Your task to perform on an android device: Add "usb-c to usb-a" to the cart on bestbuy.com, then select checkout. Image 0: 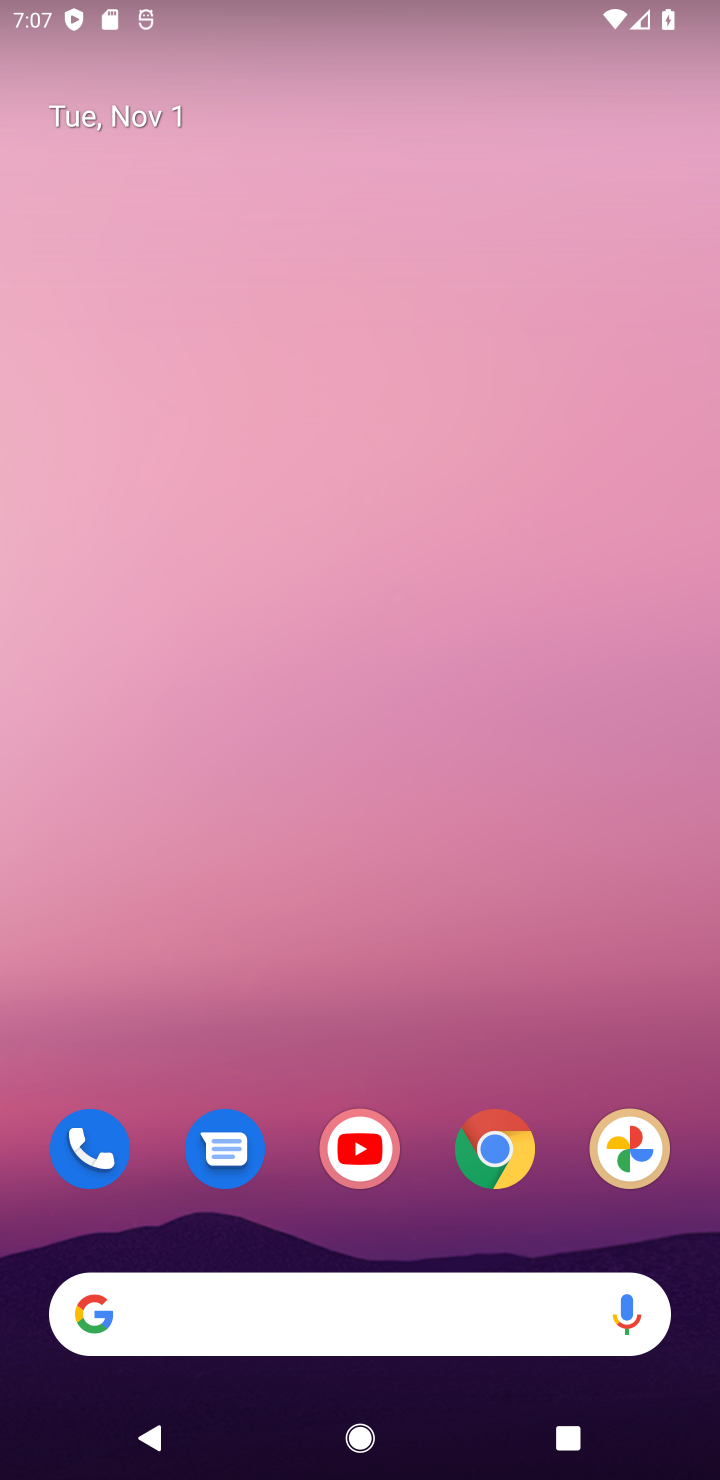
Step 0: drag from (415, 1249) to (537, 0)
Your task to perform on an android device: Add "usb-c to usb-a" to the cart on bestbuy.com, then select checkout. Image 1: 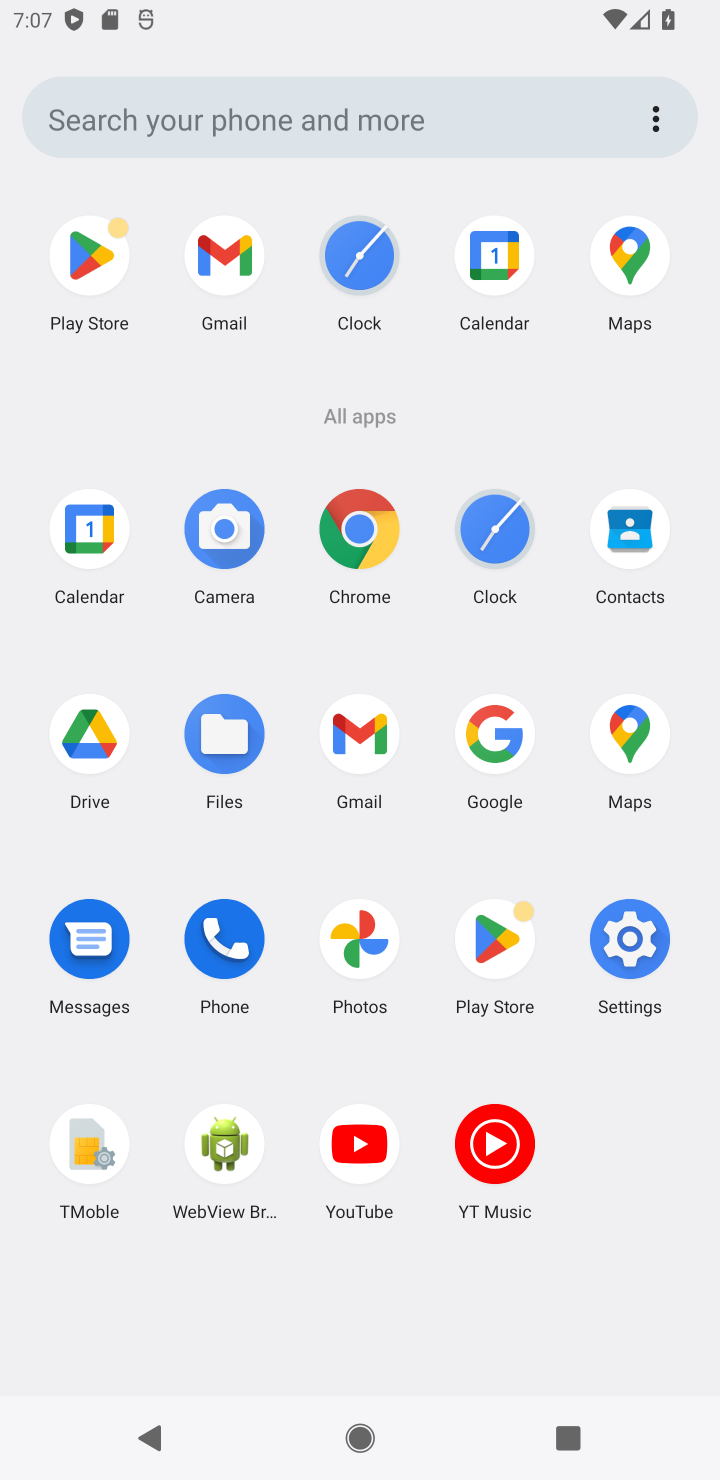
Step 1: click (371, 538)
Your task to perform on an android device: Add "usb-c to usb-a" to the cart on bestbuy.com, then select checkout. Image 2: 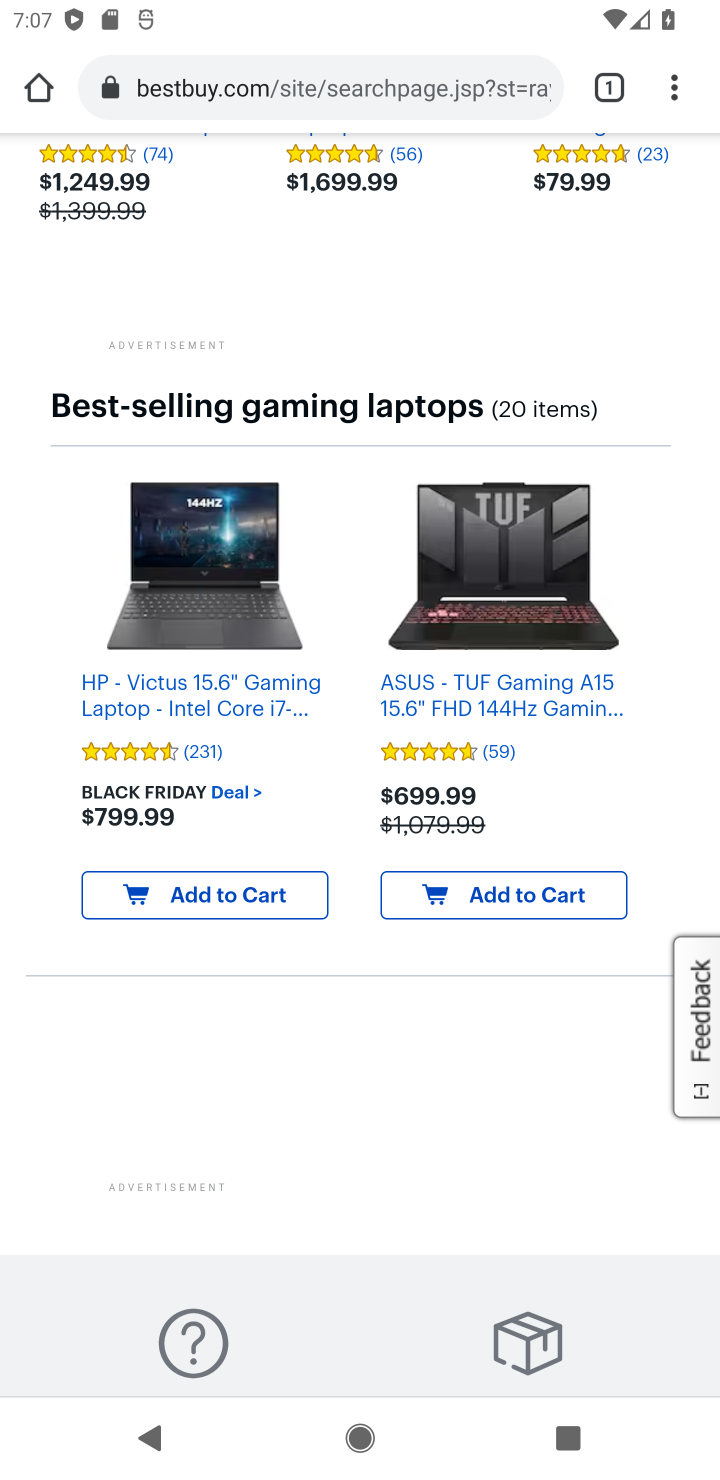
Step 2: click (402, 76)
Your task to perform on an android device: Add "usb-c to usb-a" to the cart on bestbuy.com, then select checkout. Image 3: 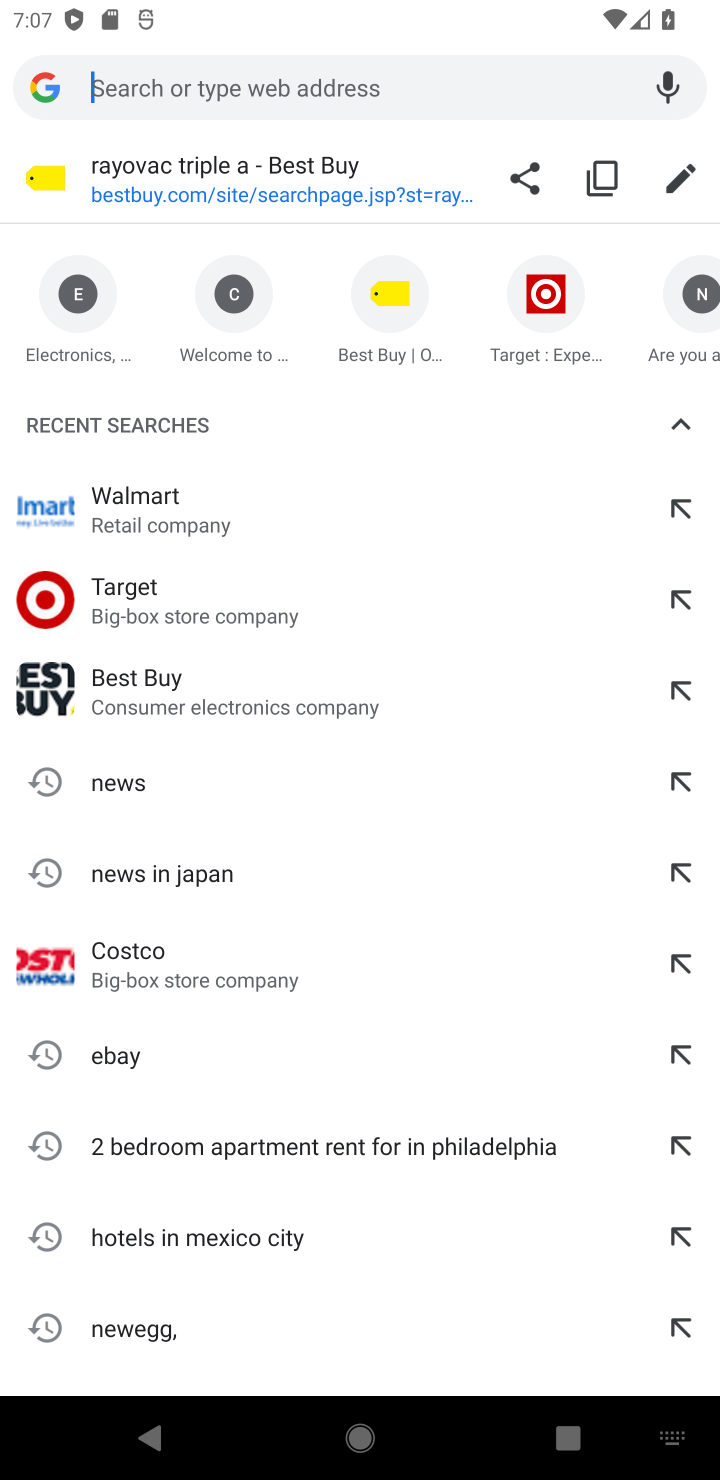
Step 3: type "bestbuy.com"
Your task to perform on an android device: Add "usb-c to usb-a" to the cart on bestbuy.com, then select checkout. Image 4: 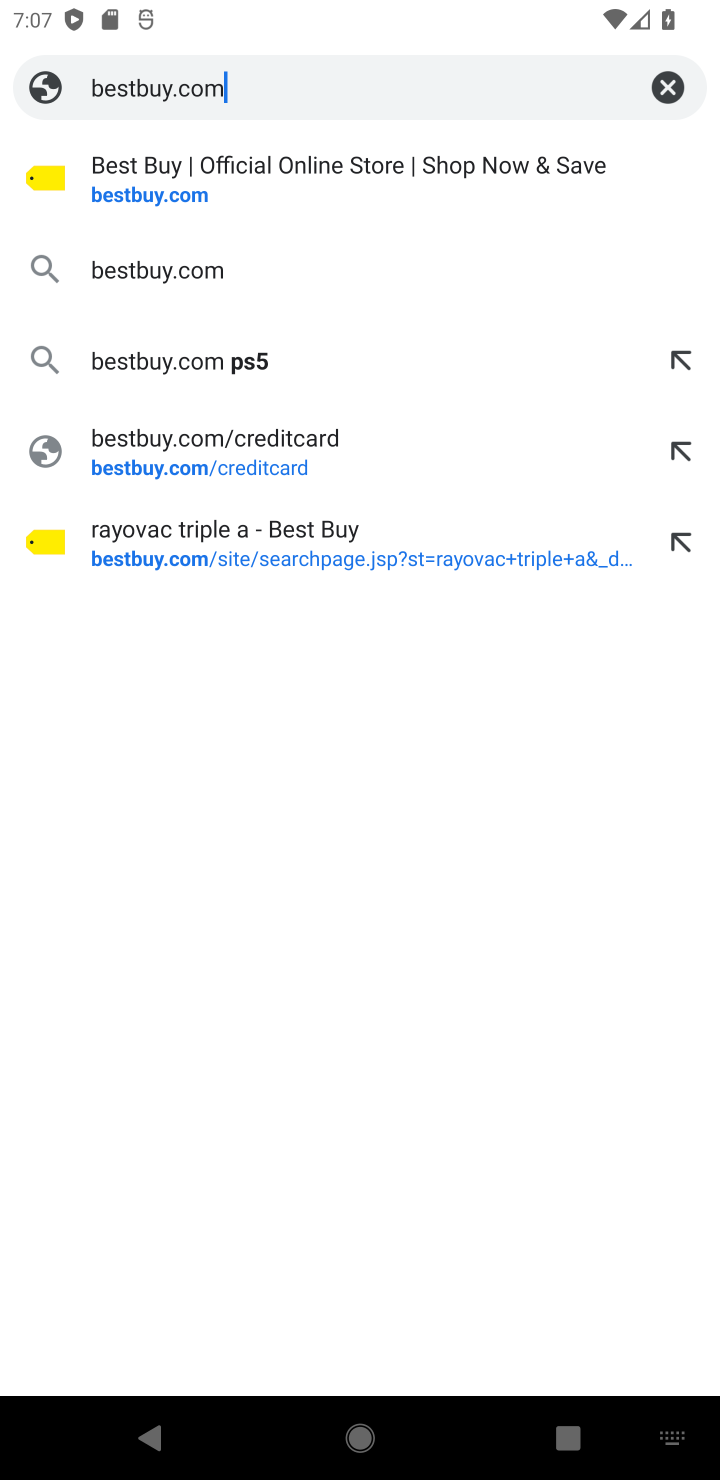
Step 4: press enter
Your task to perform on an android device: Add "usb-c to usb-a" to the cart on bestbuy.com, then select checkout. Image 5: 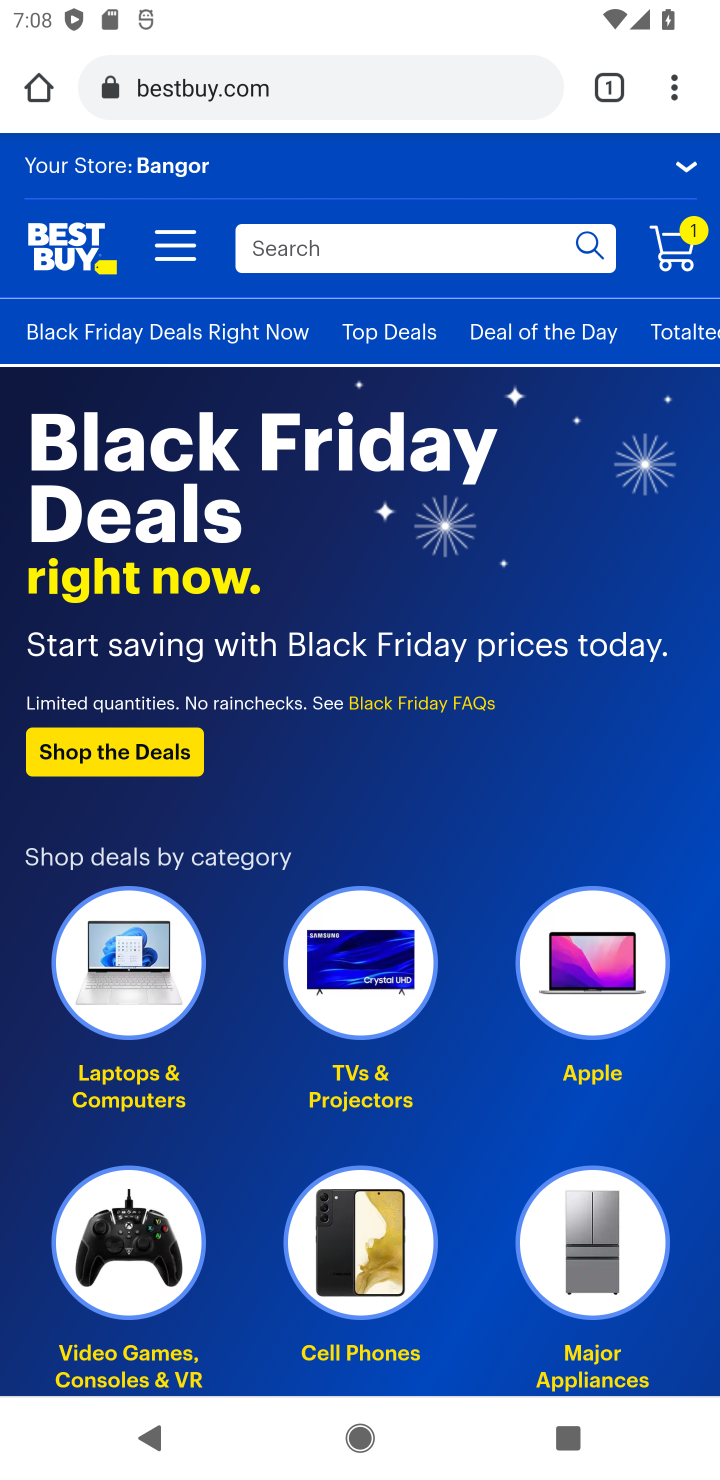
Step 5: click (425, 256)
Your task to perform on an android device: Add "usb-c to usb-a" to the cart on bestbuy.com, then select checkout. Image 6: 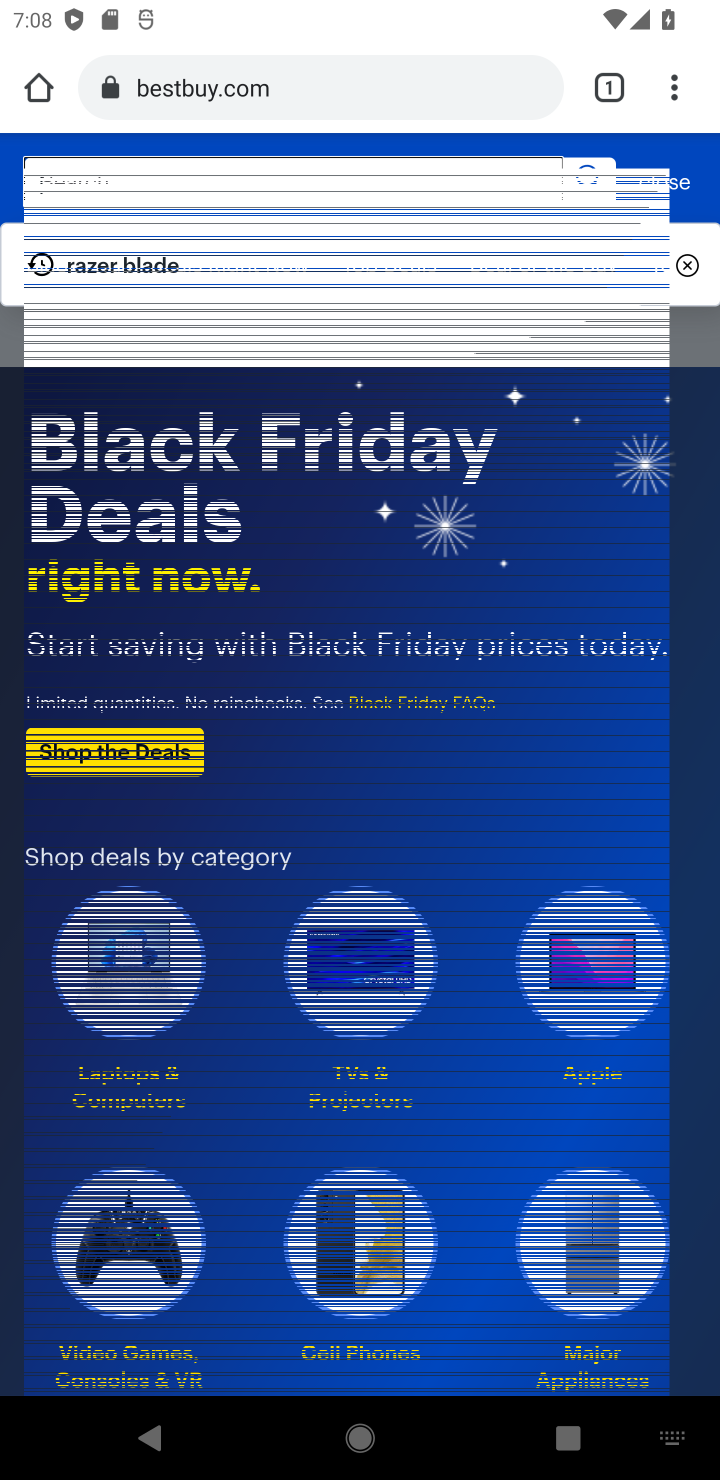
Step 6: type "usb-c to usb-a"
Your task to perform on an android device: Add "usb-c to usb-a" to the cart on bestbuy.com, then select checkout. Image 7: 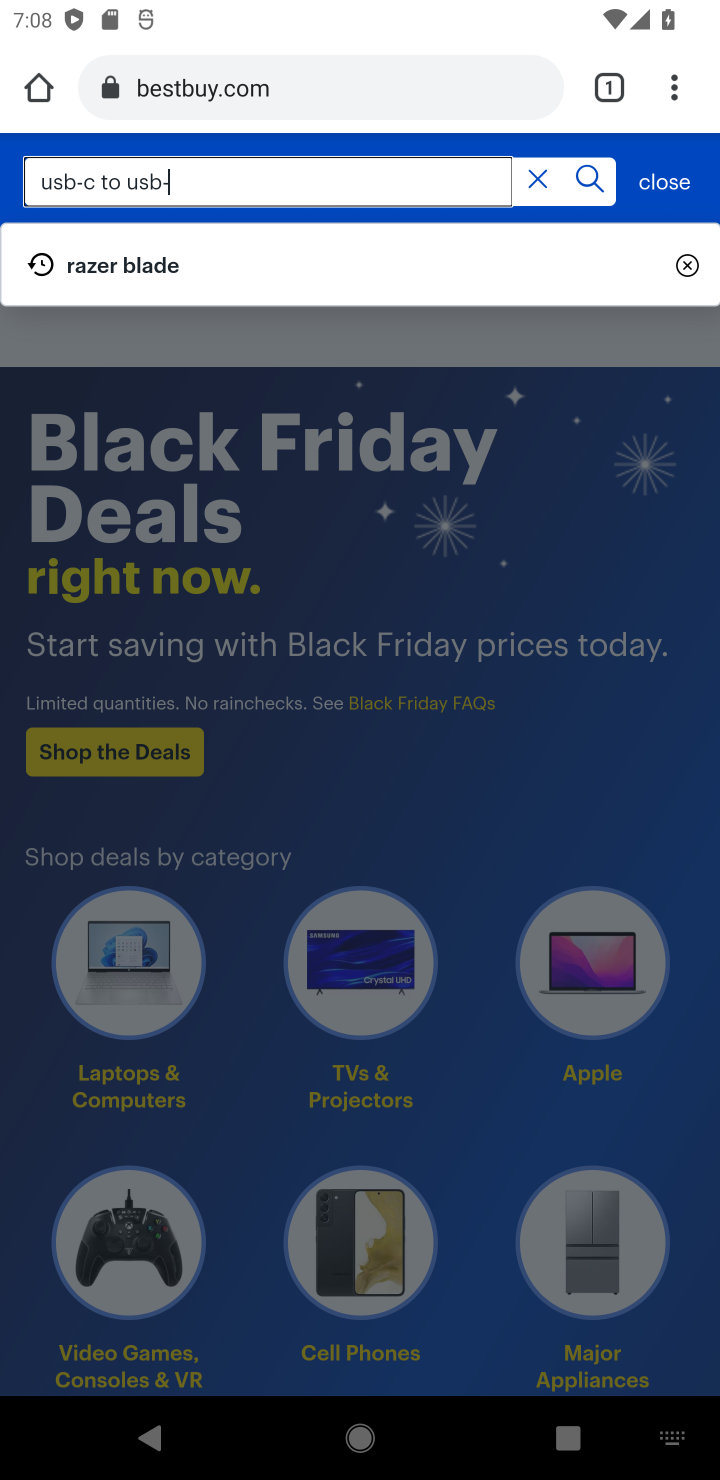
Step 7: press enter
Your task to perform on an android device: Add "usb-c to usb-a" to the cart on bestbuy.com, then select checkout. Image 8: 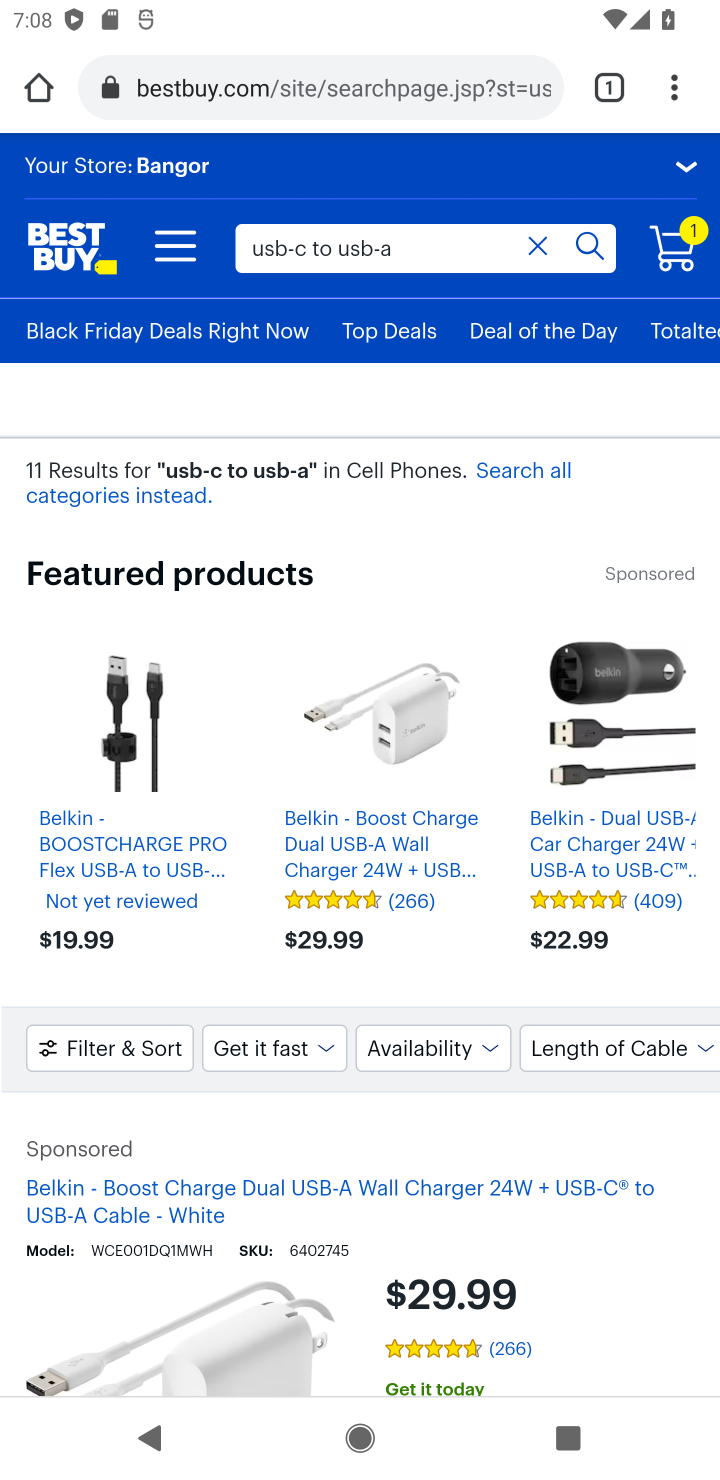
Step 8: drag from (178, 1212) to (547, 589)
Your task to perform on an android device: Add "usb-c to usb-a" to the cart on bestbuy.com, then select checkout. Image 9: 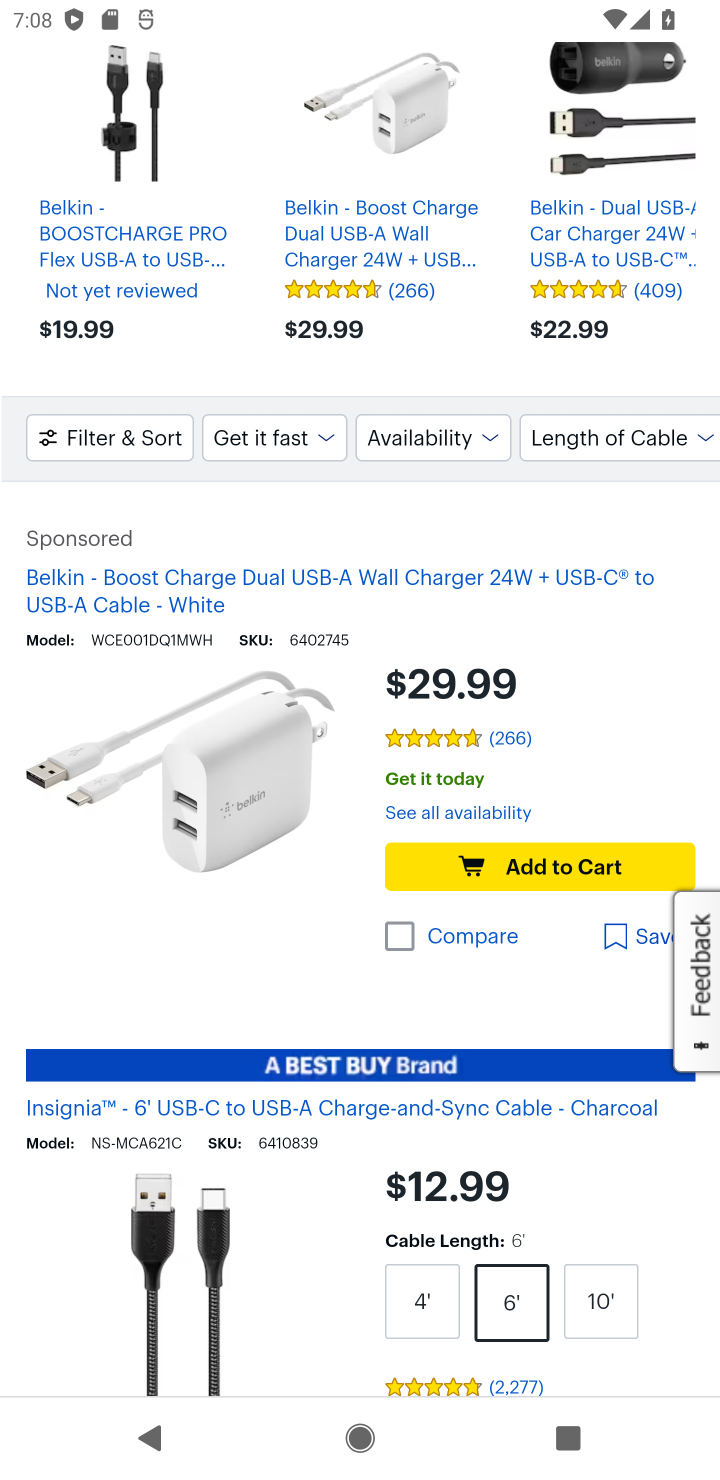
Step 9: drag from (401, 1212) to (396, 666)
Your task to perform on an android device: Add "usb-c to usb-a" to the cart on bestbuy.com, then select checkout. Image 10: 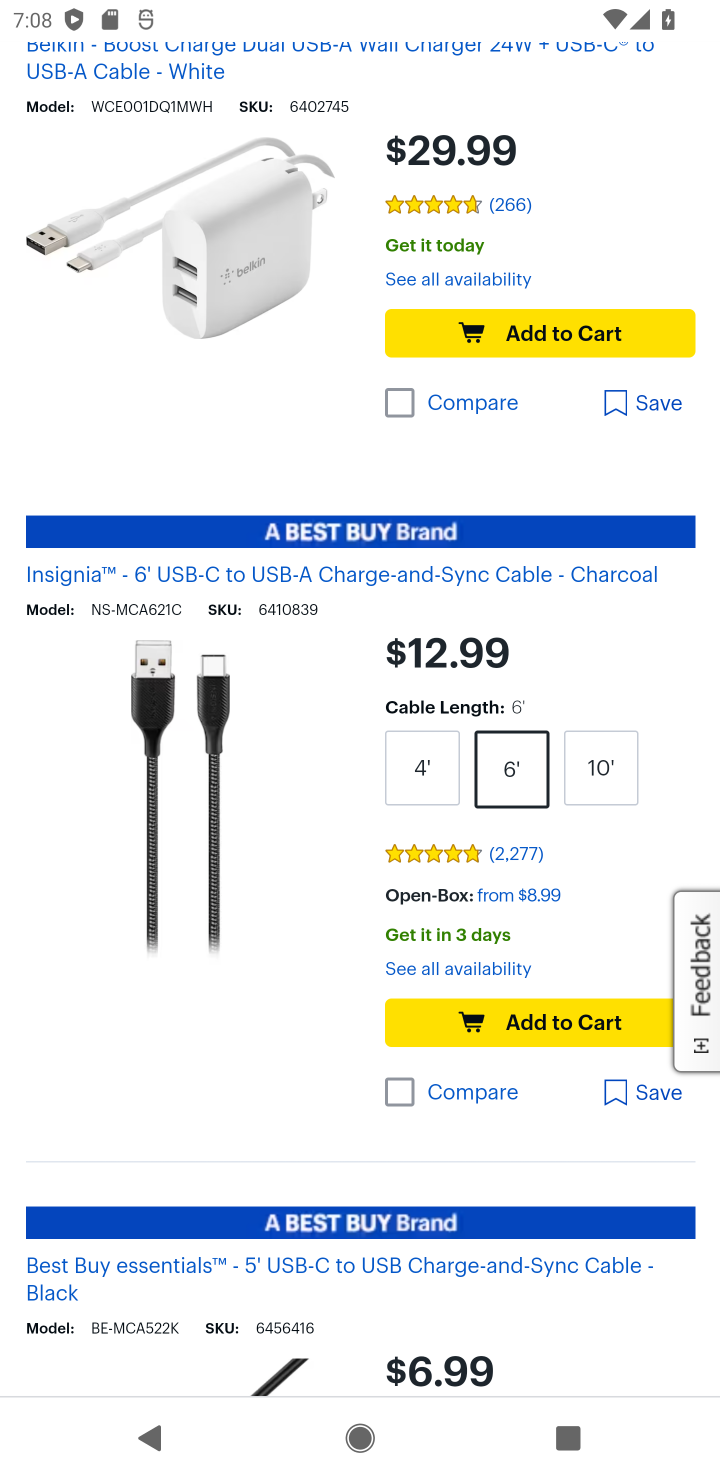
Step 10: drag from (411, 443) to (352, 831)
Your task to perform on an android device: Add "usb-c to usb-a" to the cart on bestbuy.com, then select checkout. Image 11: 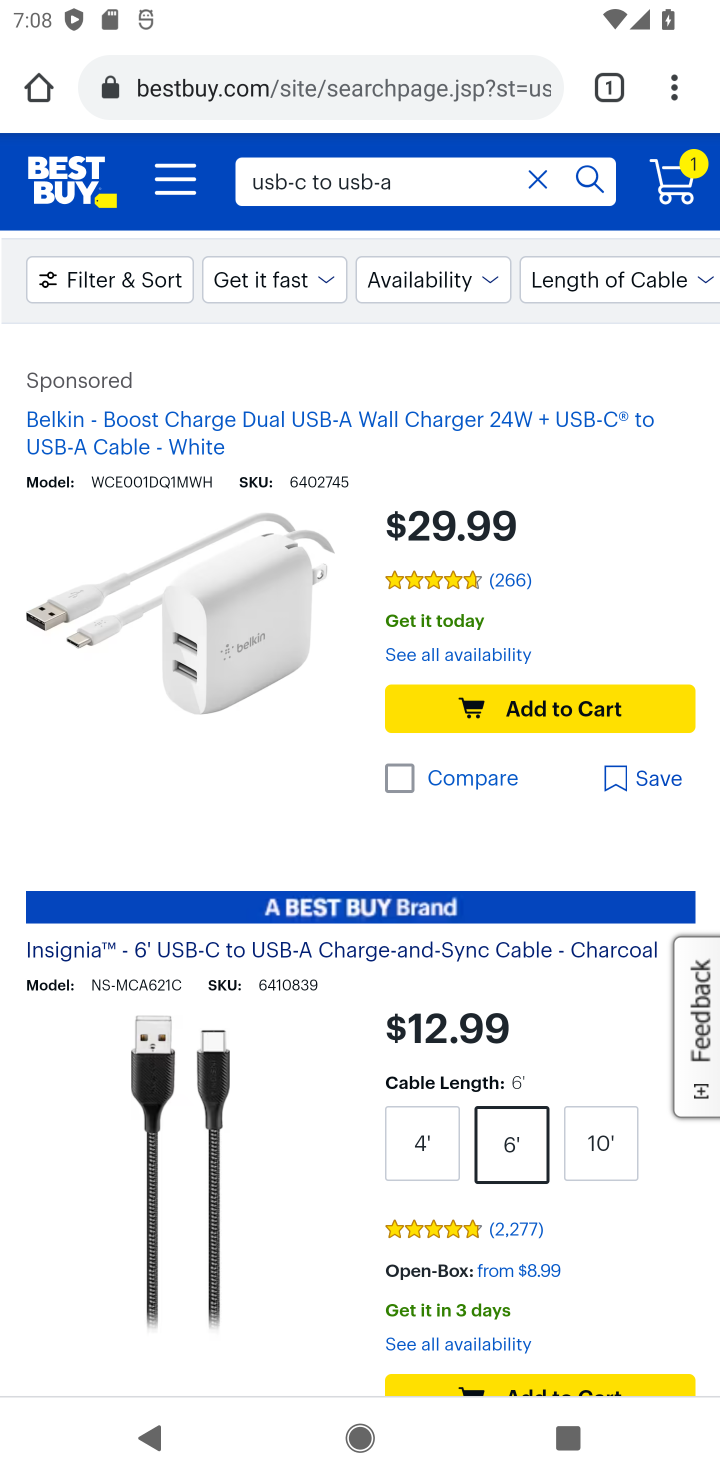
Step 11: drag from (445, 933) to (492, 605)
Your task to perform on an android device: Add "usb-c to usb-a" to the cart on bestbuy.com, then select checkout. Image 12: 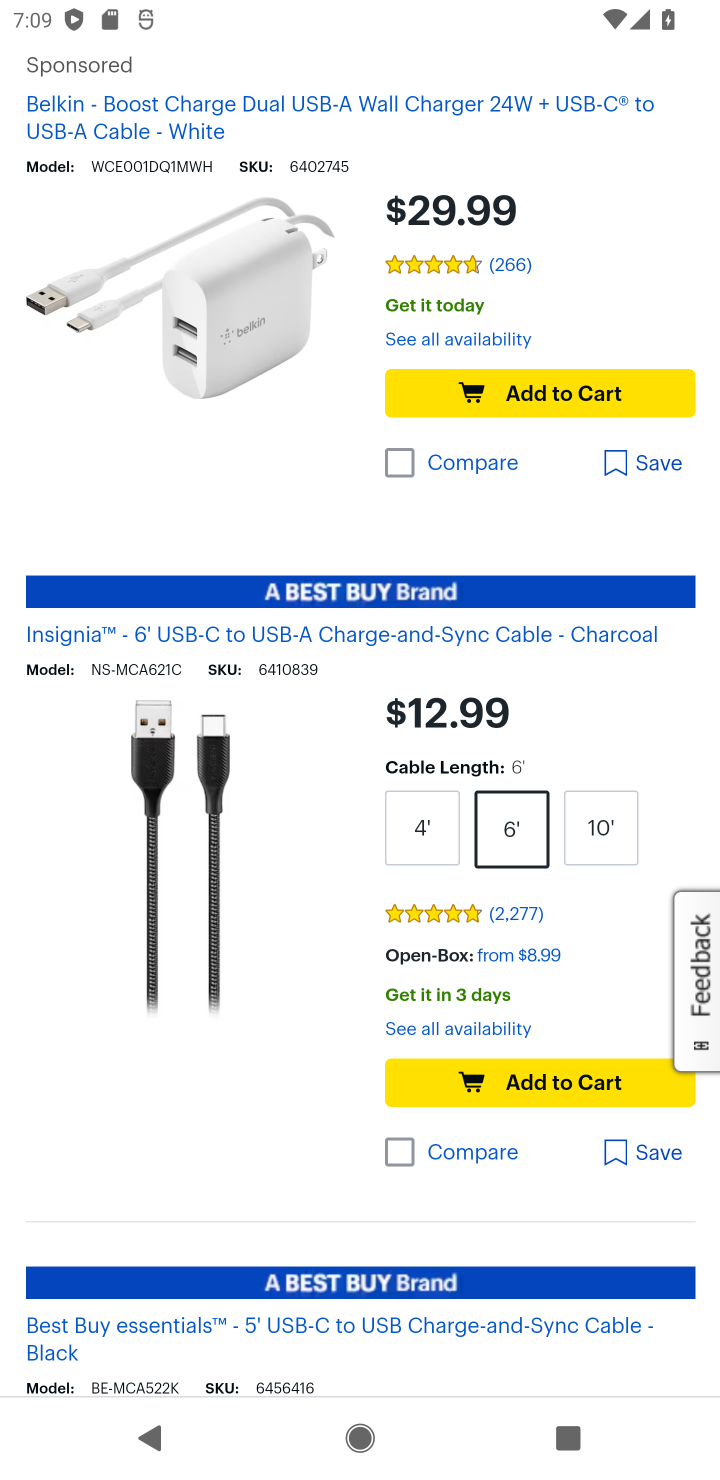
Step 12: click (548, 1082)
Your task to perform on an android device: Add "usb-c to usb-a" to the cart on bestbuy.com, then select checkout. Image 13: 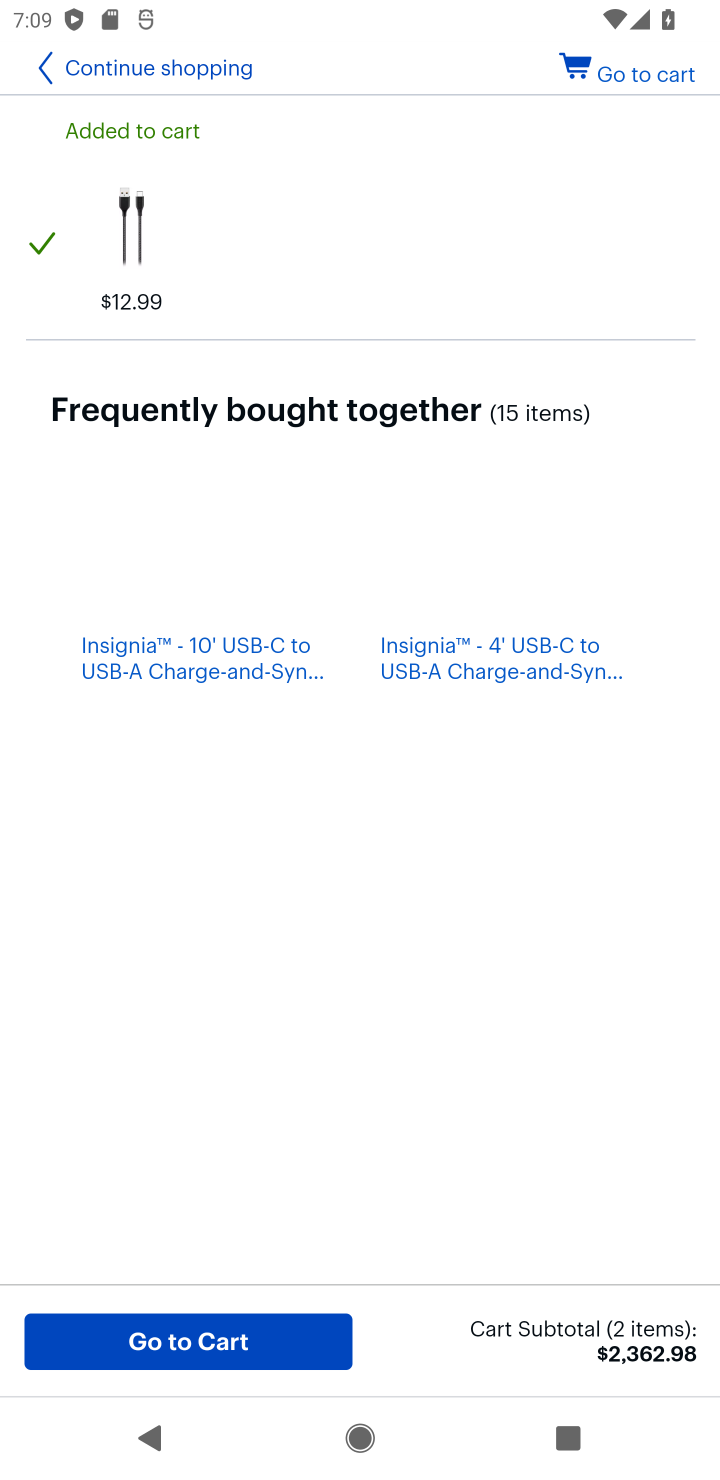
Step 13: click (241, 1335)
Your task to perform on an android device: Add "usb-c to usb-a" to the cart on bestbuy.com, then select checkout. Image 14: 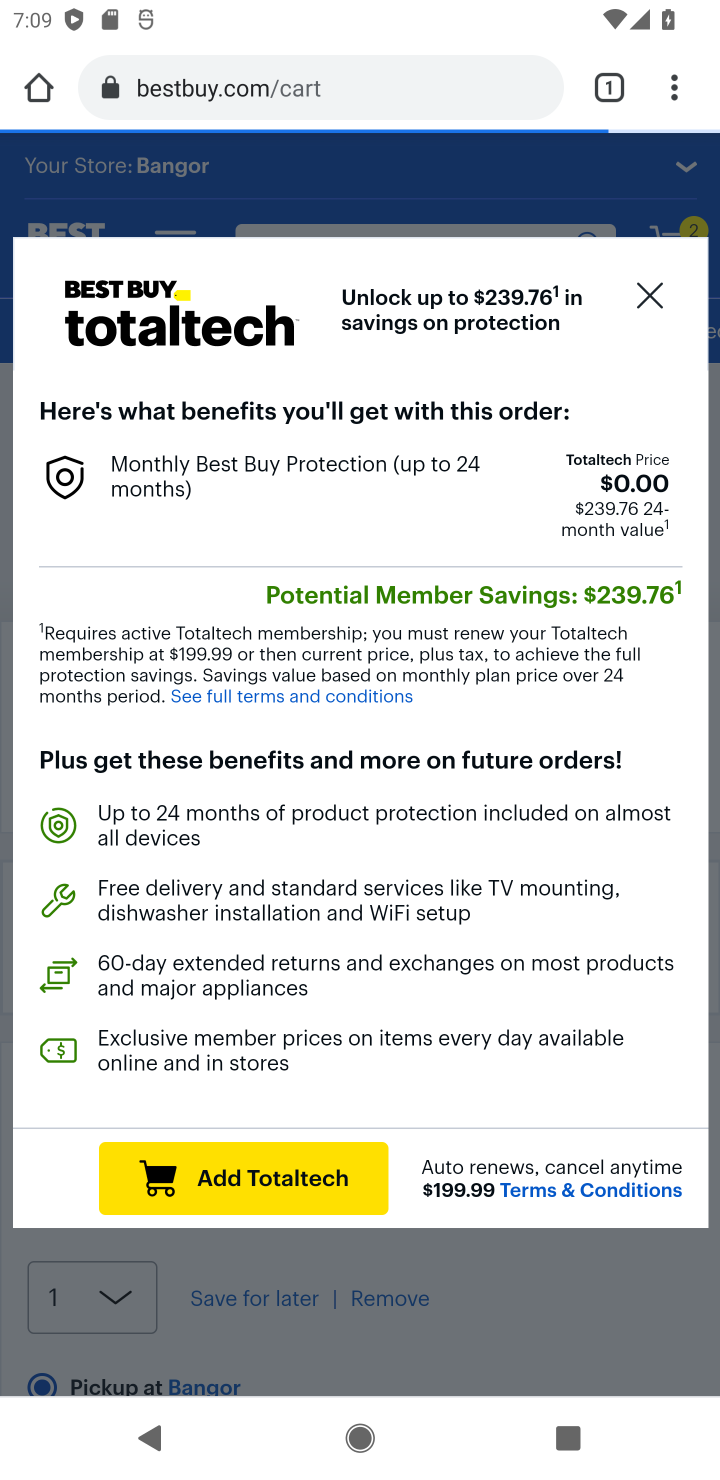
Step 14: click (665, 290)
Your task to perform on an android device: Add "usb-c to usb-a" to the cart on bestbuy.com, then select checkout. Image 15: 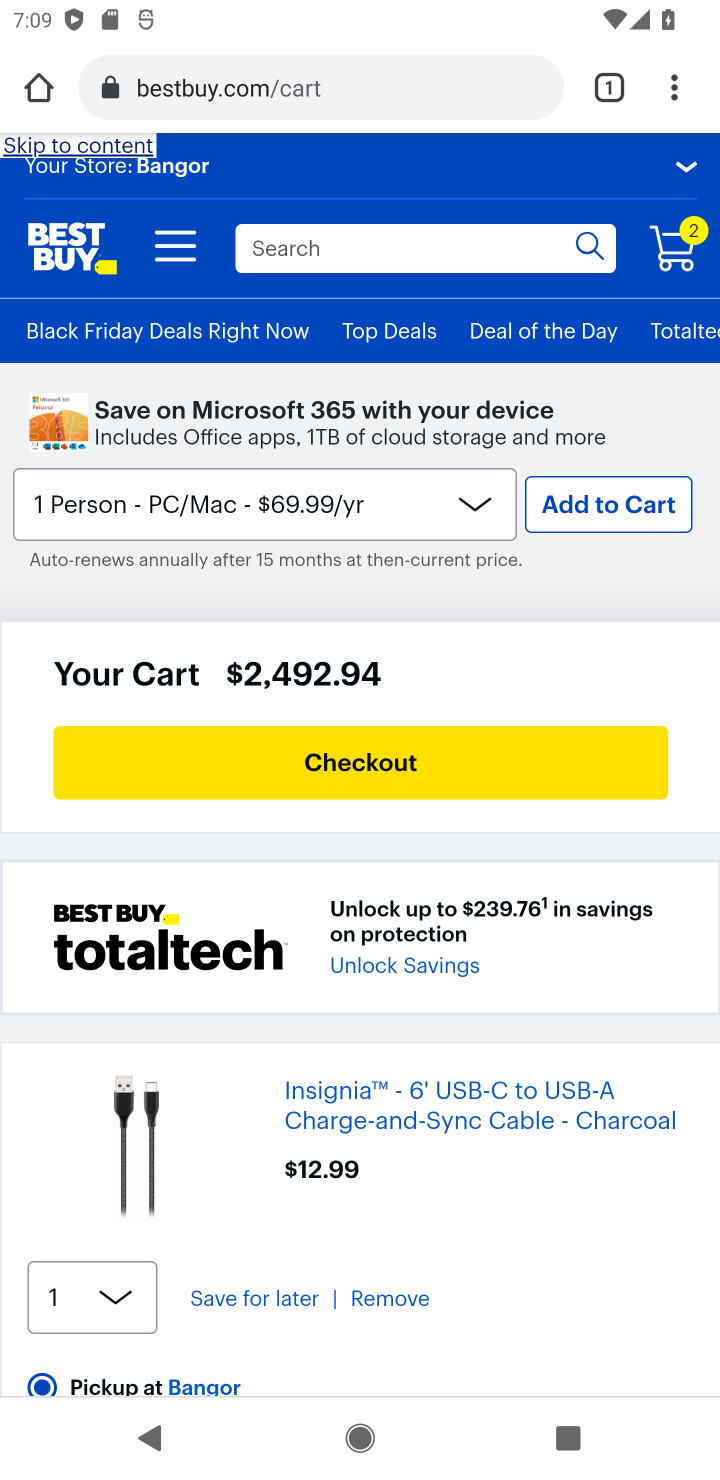
Step 15: click (484, 749)
Your task to perform on an android device: Add "usb-c to usb-a" to the cart on bestbuy.com, then select checkout. Image 16: 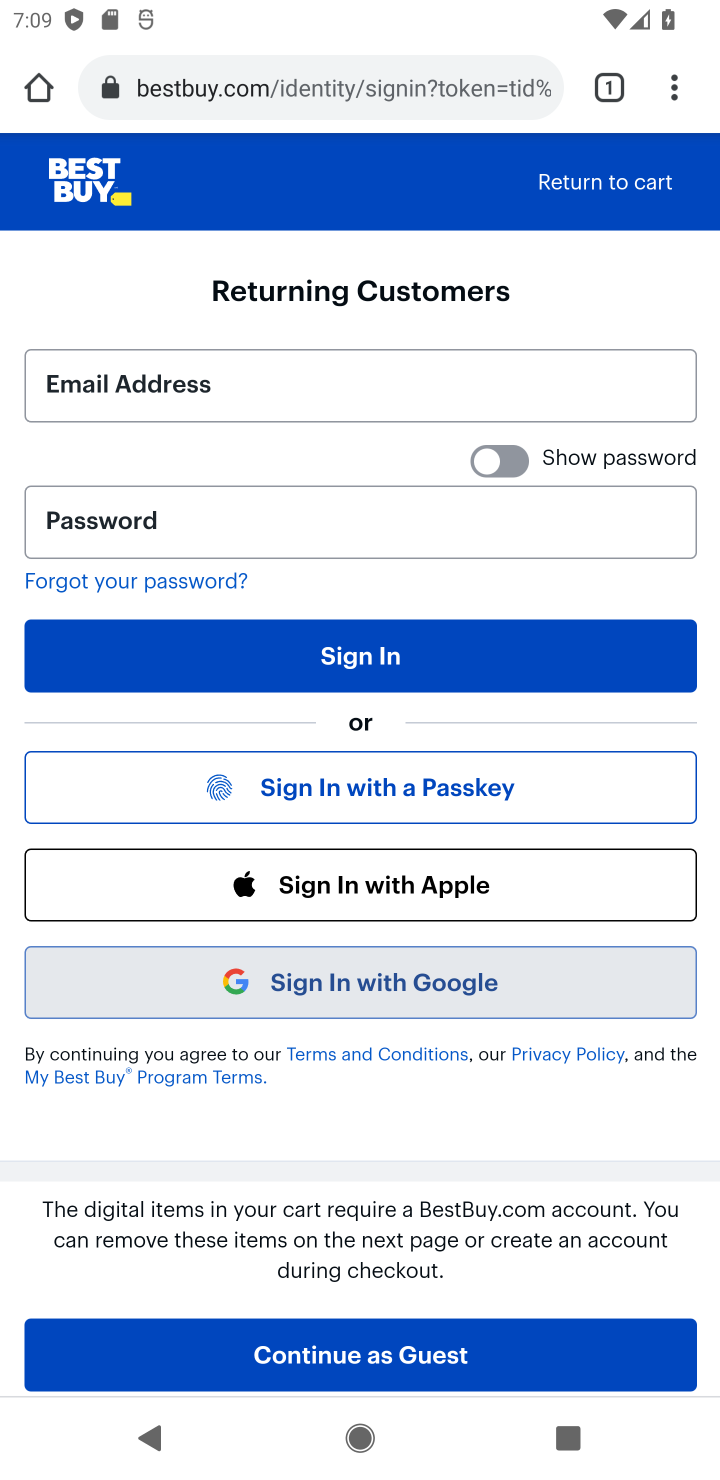
Step 16: task complete